Your task to perform on an android device: open device folders in google photos Image 0: 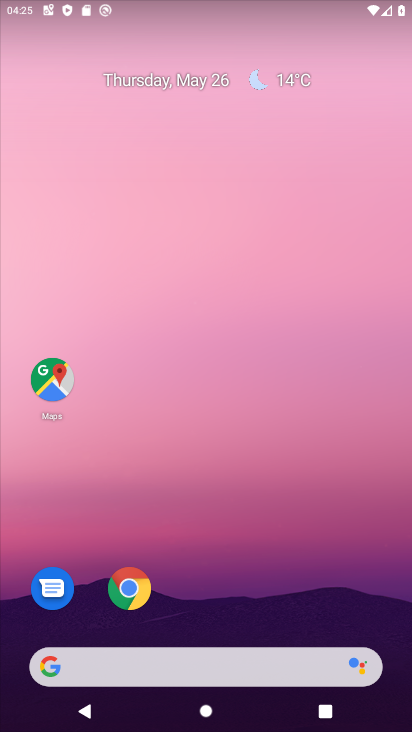
Step 0: drag from (325, 593) to (285, 138)
Your task to perform on an android device: open device folders in google photos Image 1: 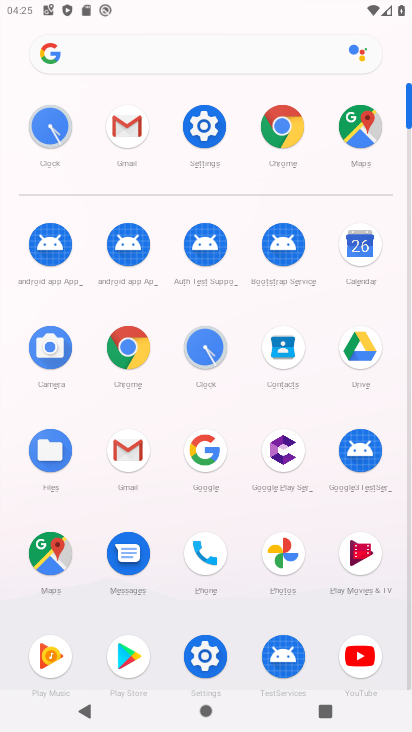
Step 1: click (264, 553)
Your task to perform on an android device: open device folders in google photos Image 2: 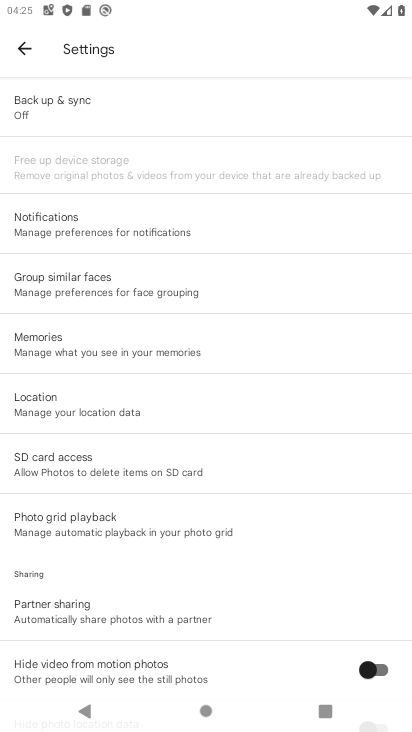
Step 2: click (20, 54)
Your task to perform on an android device: open device folders in google photos Image 3: 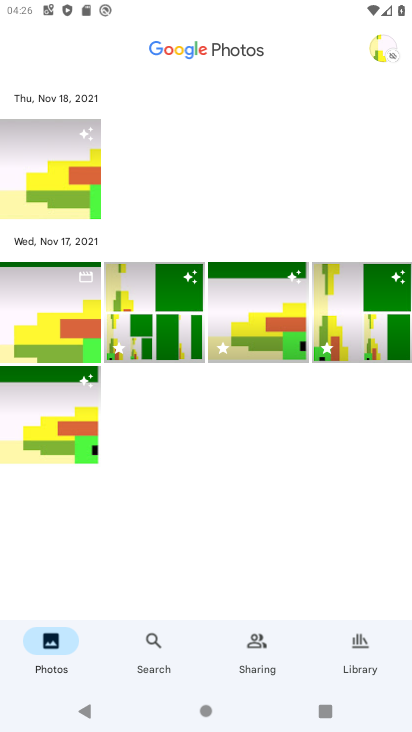
Step 3: click (387, 50)
Your task to perform on an android device: open device folders in google photos Image 4: 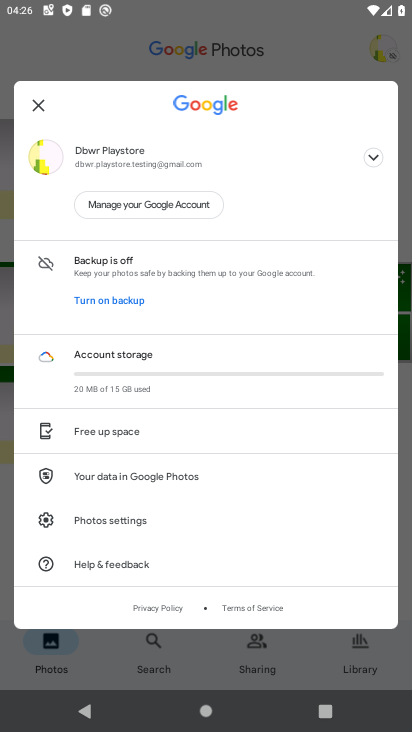
Step 4: click (180, 520)
Your task to perform on an android device: open device folders in google photos Image 5: 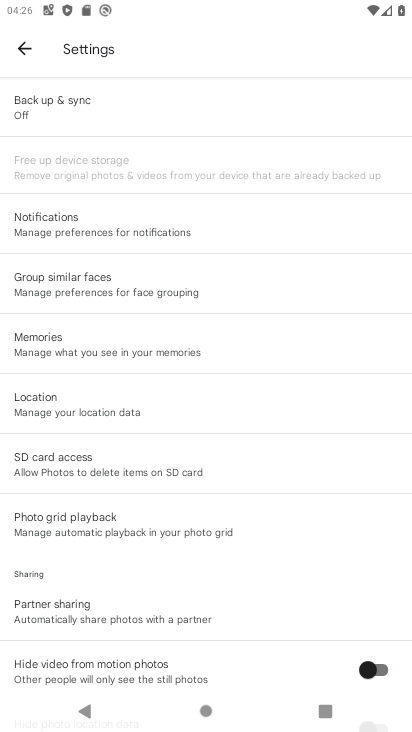
Step 5: task complete